Your task to perform on an android device: turn off smart reply in the gmail app Image 0: 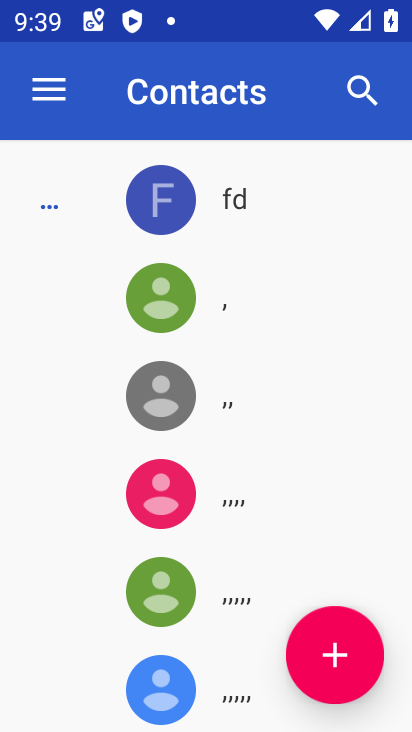
Step 0: press home button
Your task to perform on an android device: turn off smart reply in the gmail app Image 1: 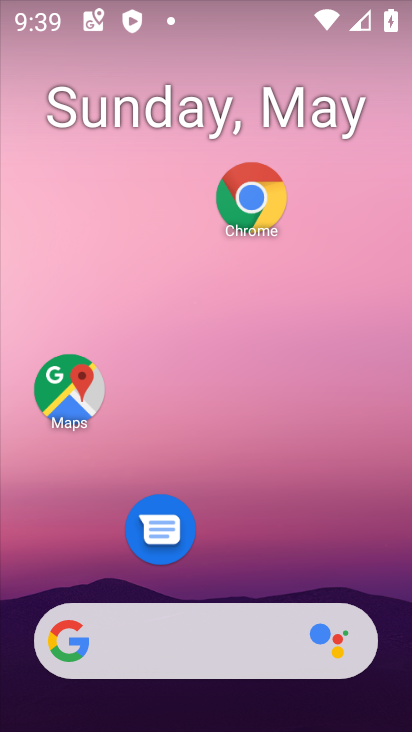
Step 1: drag from (294, 583) to (307, 49)
Your task to perform on an android device: turn off smart reply in the gmail app Image 2: 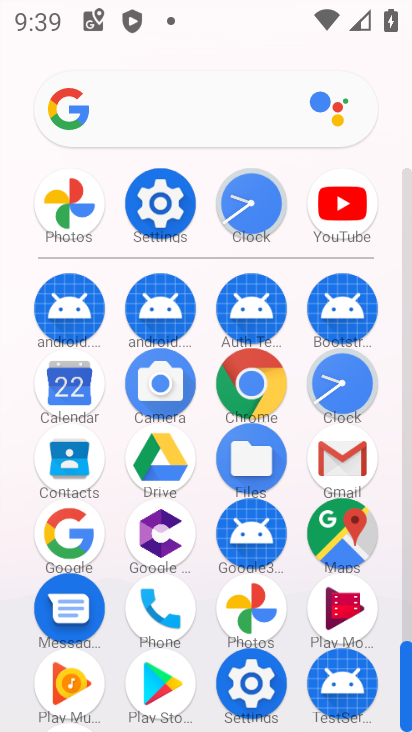
Step 2: click (341, 456)
Your task to perform on an android device: turn off smart reply in the gmail app Image 3: 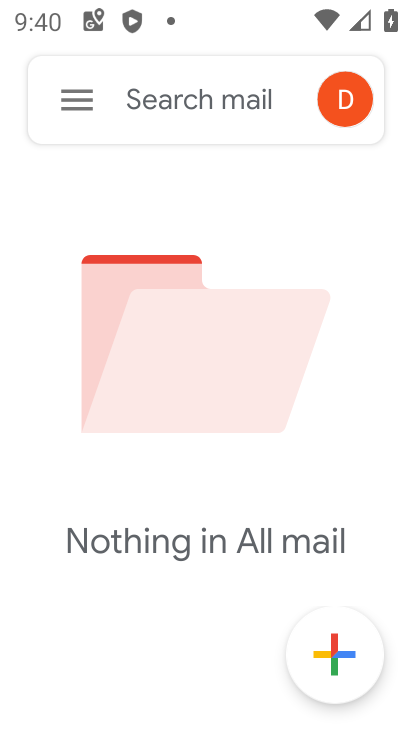
Step 3: click (88, 93)
Your task to perform on an android device: turn off smart reply in the gmail app Image 4: 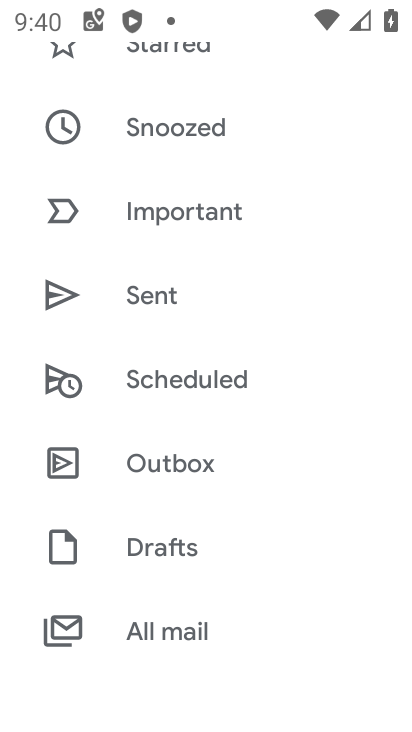
Step 4: drag from (151, 652) to (232, 289)
Your task to perform on an android device: turn off smart reply in the gmail app Image 5: 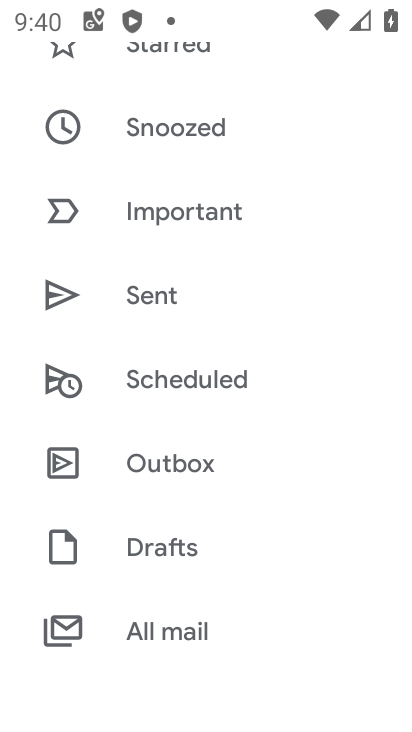
Step 5: drag from (237, 571) to (276, 213)
Your task to perform on an android device: turn off smart reply in the gmail app Image 6: 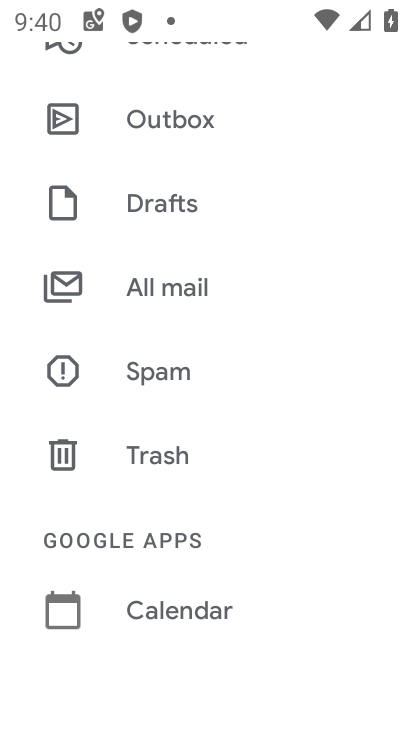
Step 6: drag from (241, 532) to (233, 235)
Your task to perform on an android device: turn off smart reply in the gmail app Image 7: 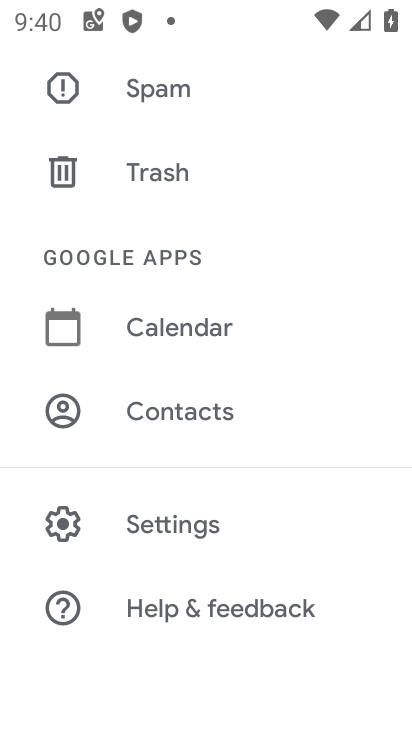
Step 7: click (165, 537)
Your task to perform on an android device: turn off smart reply in the gmail app Image 8: 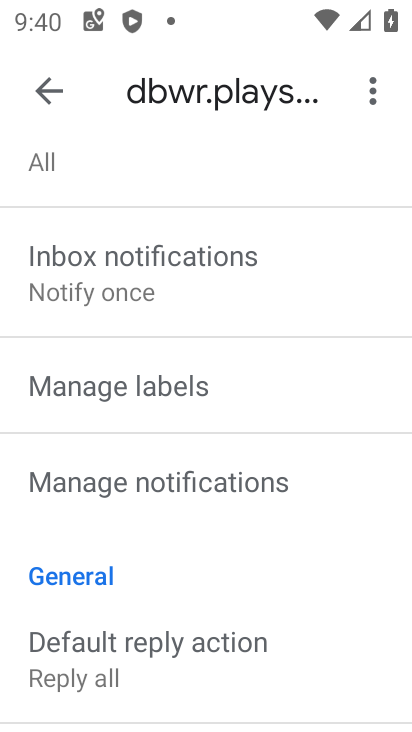
Step 8: drag from (157, 669) to (237, 348)
Your task to perform on an android device: turn off smart reply in the gmail app Image 9: 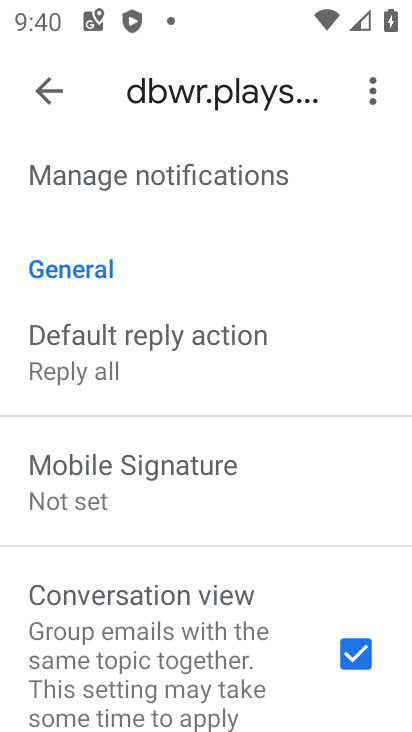
Step 9: drag from (214, 676) to (225, 317)
Your task to perform on an android device: turn off smart reply in the gmail app Image 10: 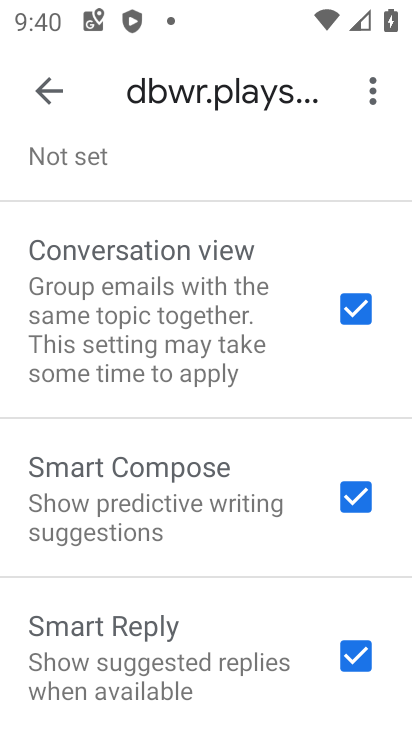
Step 10: drag from (181, 633) to (178, 248)
Your task to perform on an android device: turn off smart reply in the gmail app Image 11: 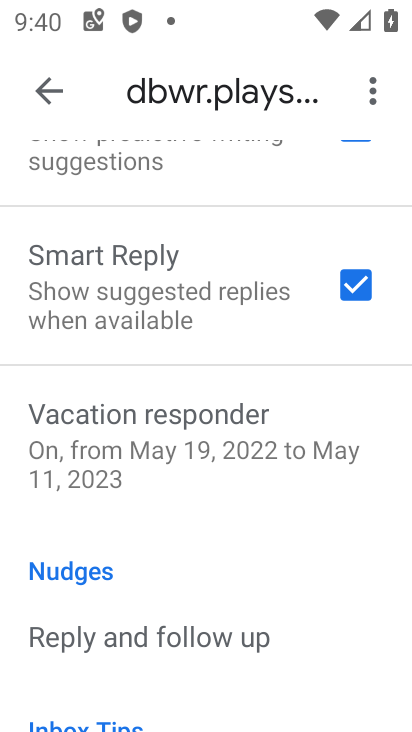
Step 11: click (329, 313)
Your task to perform on an android device: turn off smart reply in the gmail app Image 12: 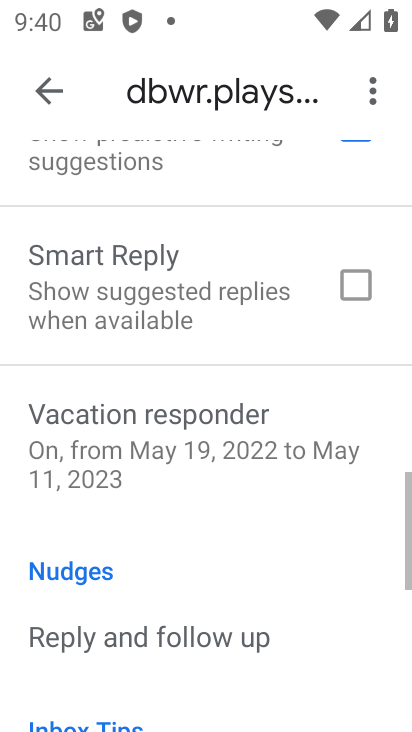
Step 12: task complete